Your task to perform on an android device: Toggle the flashlight Image 0: 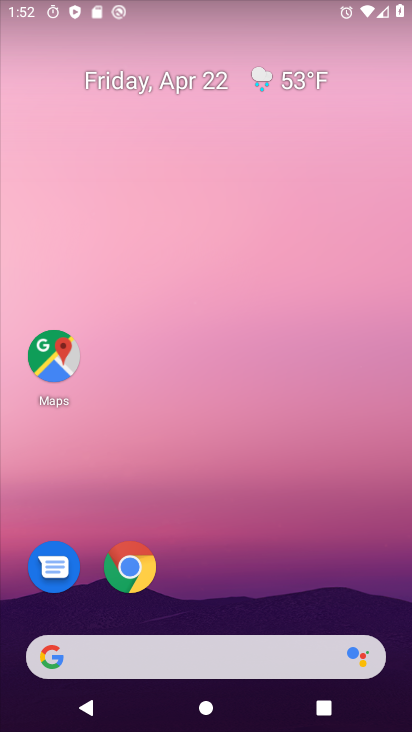
Step 0: drag from (331, 530) to (354, 100)
Your task to perform on an android device: Toggle the flashlight Image 1: 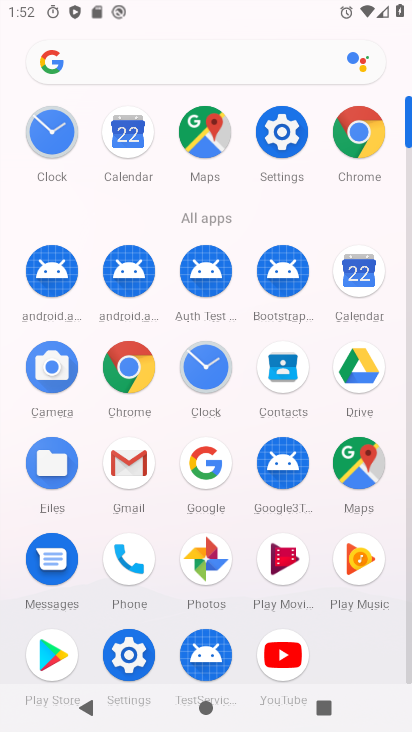
Step 1: click (290, 132)
Your task to perform on an android device: Toggle the flashlight Image 2: 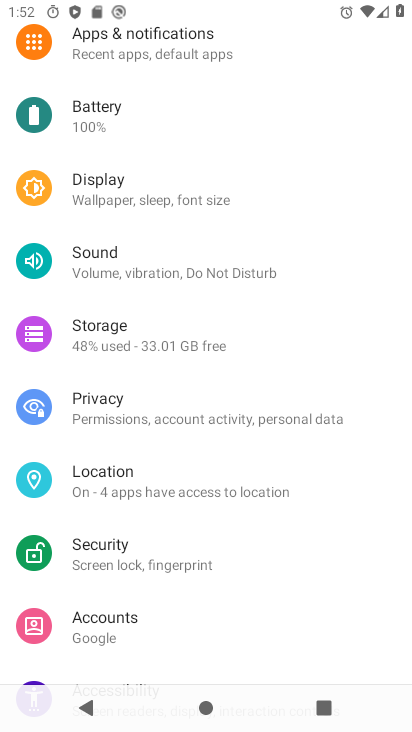
Step 2: drag from (288, 130) to (270, 697)
Your task to perform on an android device: Toggle the flashlight Image 3: 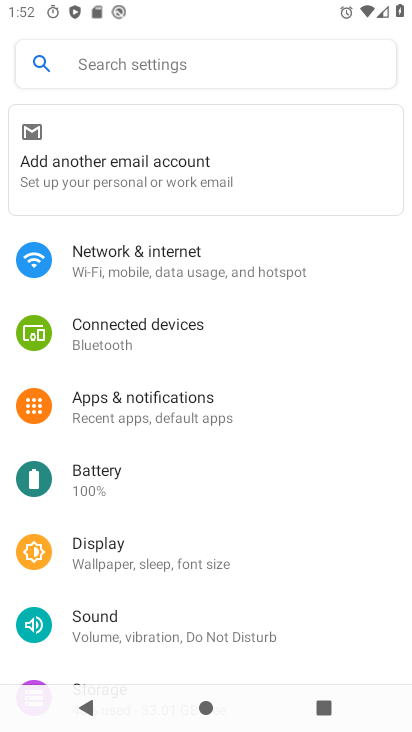
Step 3: click (248, 54)
Your task to perform on an android device: Toggle the flashlight Image 4: 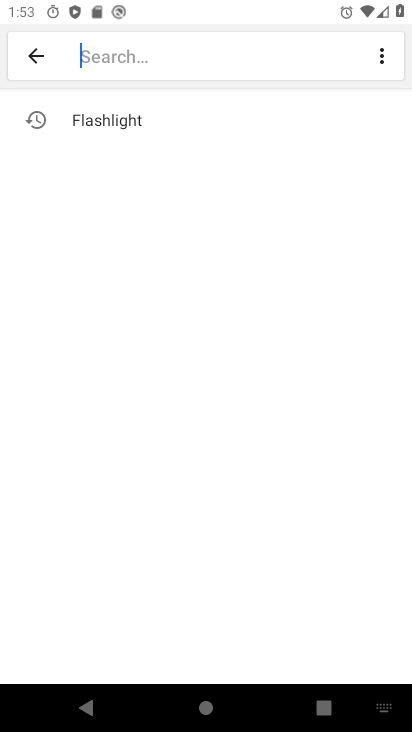
Step 4: click (132, 116)
Your task to perform on an android device: Toggle the flashlight Image 5: 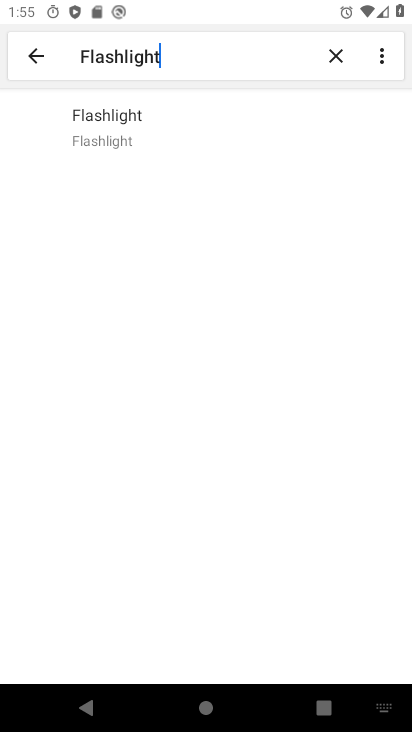
Step 5: task complete